Your task to perform on an android device: install app "Pinterest" Image 0: 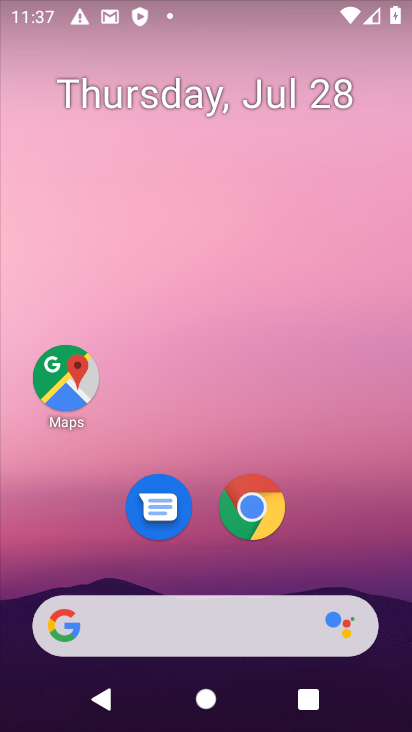
Step 0: drag from (227, 587) to (326, 0)
Your task to perform on an android device: install app "Pinterest" Image 1: 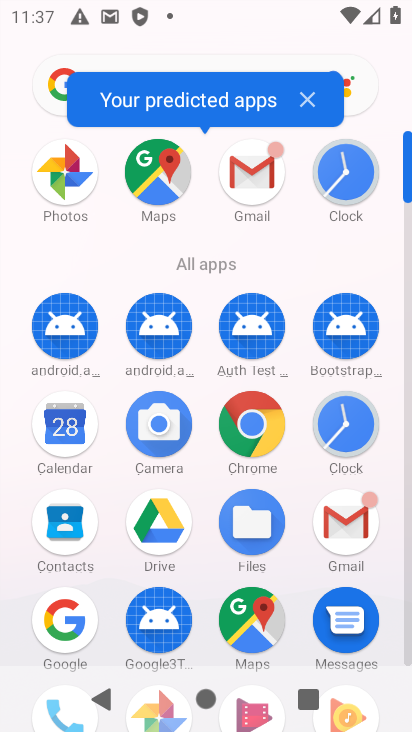
Step 1: drag from (240, 507) to (246, 128)
Your task to perform on an android device: install app "Pinterest" Image 2: 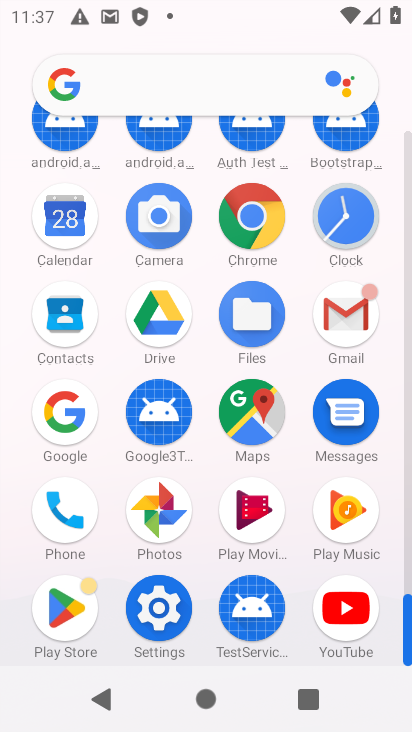
Step 2: click (72, 616)
Your task to perform on an android device: install app "Pinterest" Image 3: 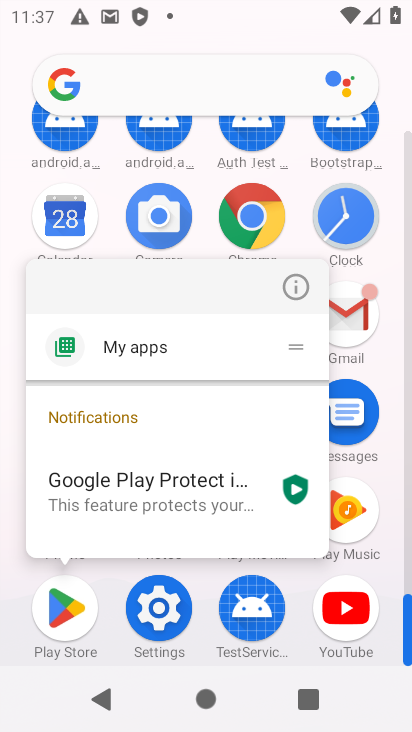
Step 3: click (62, 586)
Your task to perform on an android device: install app "Pinterest" Image 4: 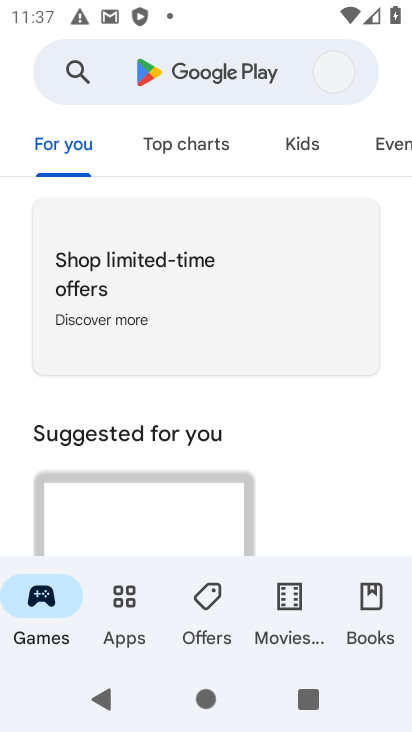
Step 4: click (198, 74)
Your task to perform on an android device: install app "Pinterest" Image 5: 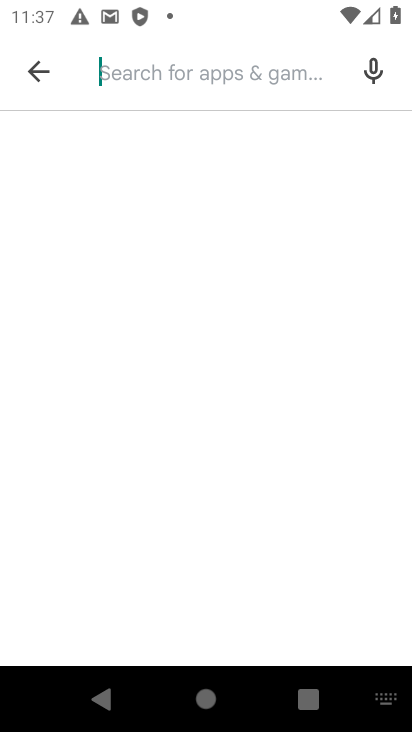
Step 5: type "Pinterest"
Your task to perform on an android device: install app "Pinterest" Image 6: 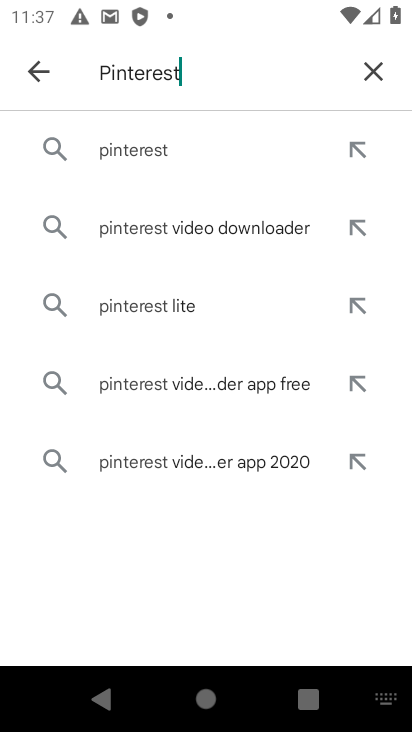
Step 6: click (147, 156)
Your task to perform on an android device: install app "Pinterest" Image 7: 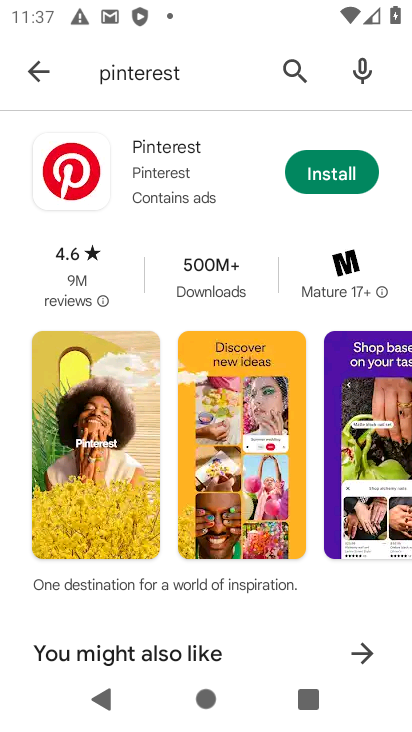
Step 7: click (328, 179)
Your task to perform on an android device: install app "Pinterest" Image 8: 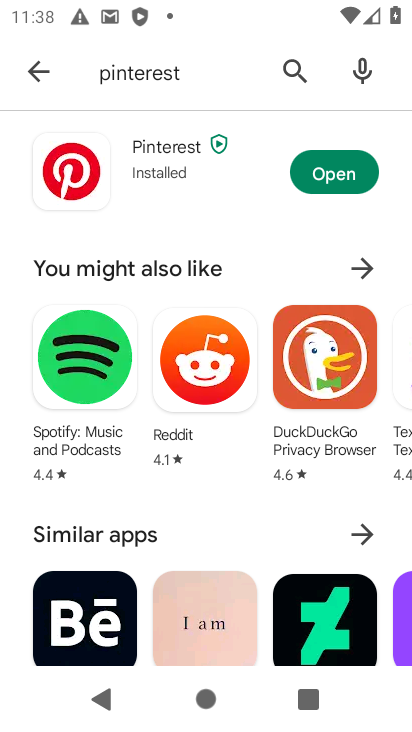
Step 8: task complete